Your task to perform on an android device: Search for Italian restaurants on Maps Image 0: 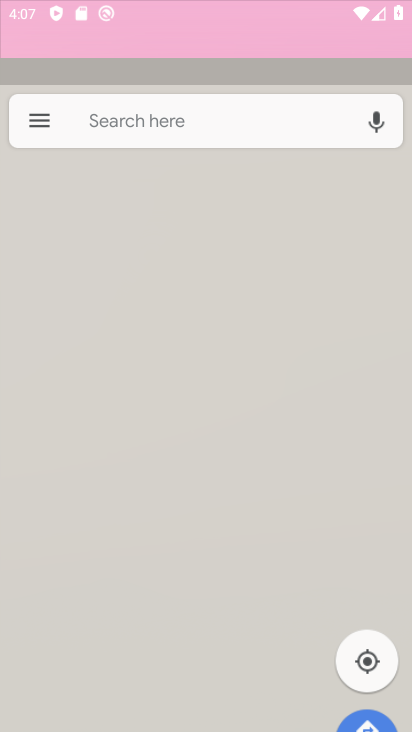
Step 0: drag from (225, 565) to (178, 53)
Your task to perform on an android device: Search for Italian restaurants on Maps Image 1: 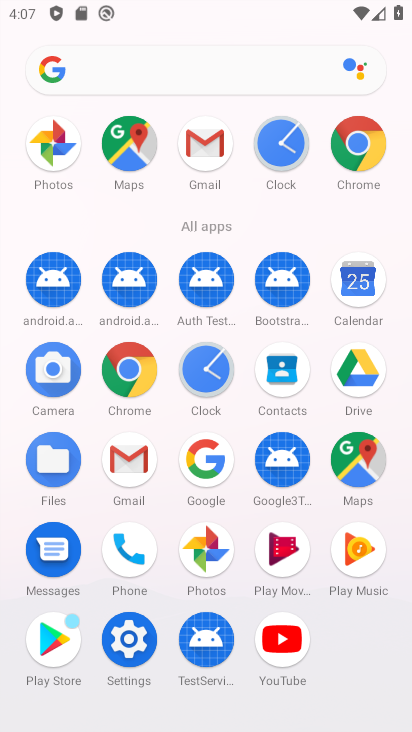
Step 1: click (128, 142)
Your task to perform on an android device: Search for Italian restaurants on Maps Image 2: 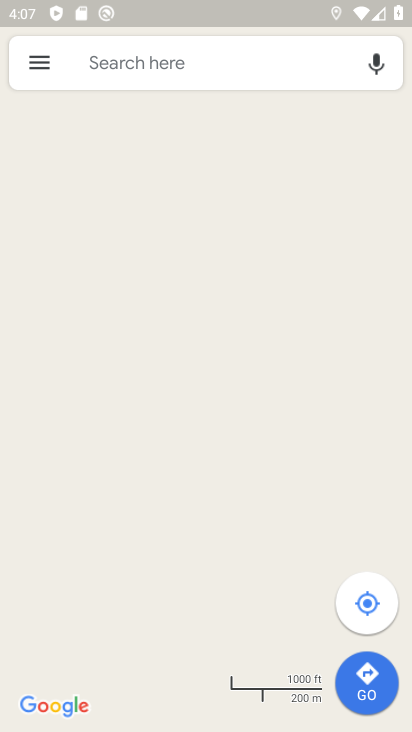
Step 2: click (228, 66)
Your task to perform on an android device: Search for Italian restaurants on Maps Image 3: 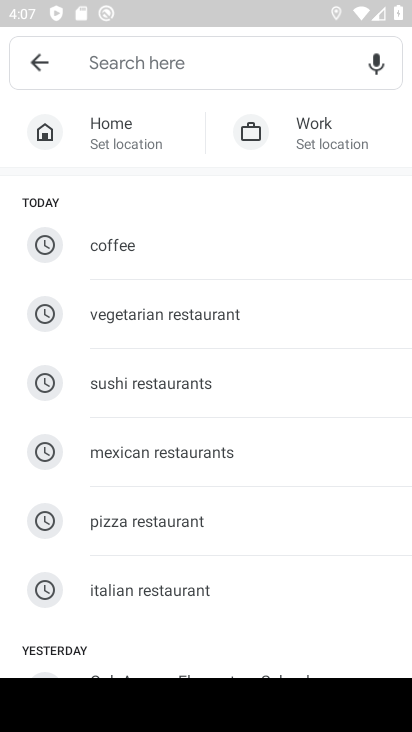
Step 3: click (175, 590)
Your task to perform on an android device: Search for Italian restaurants on Maps Image 4: 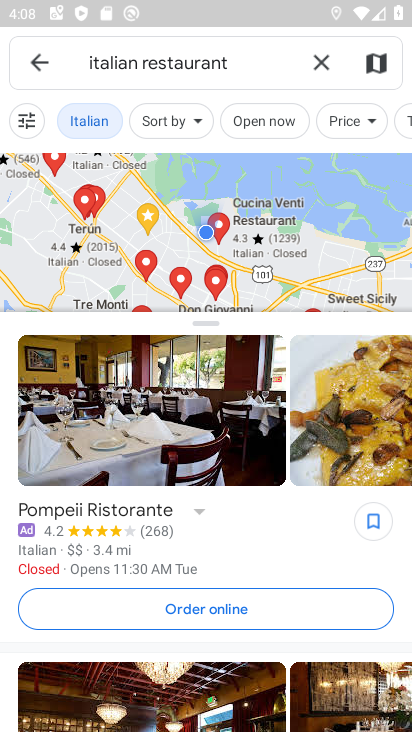
Step 4: task complete